Your task to perform on an android device: Open Google Image 0: 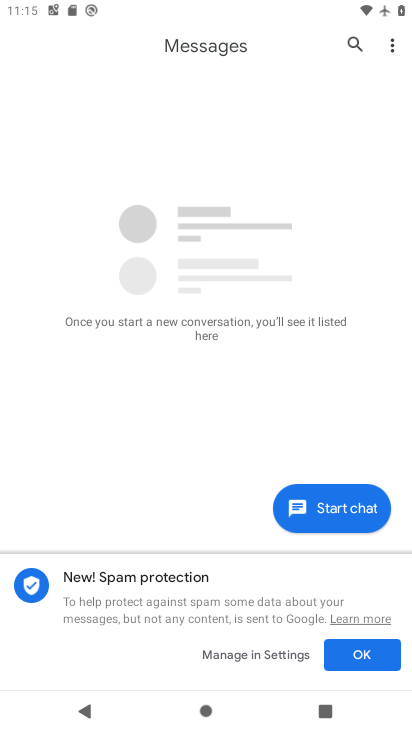
Step 0: press home button
Your task to perform on an android device: Open Google Image 1: 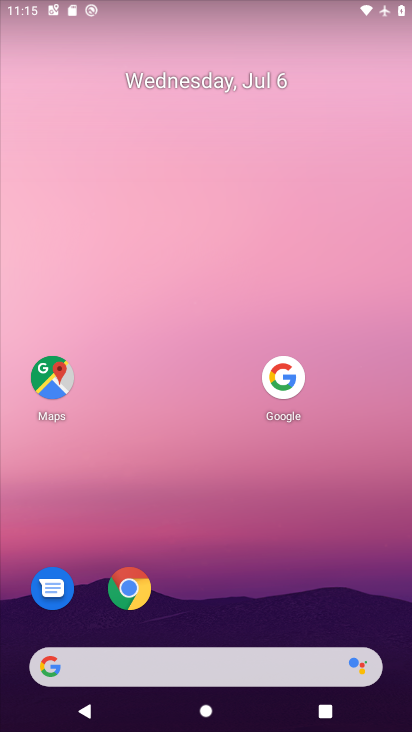
Step 1: click (281, 380)
Your task to perform on an android device: Open Google Image 2: 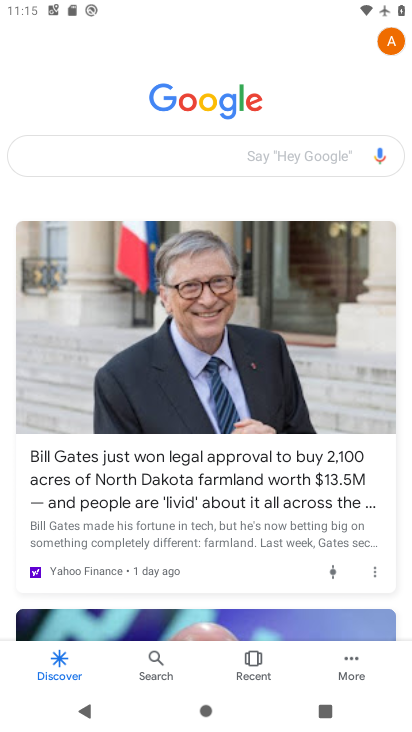
Step 2: task complete